Your task to perform on an android device: Do I have any events this weekend? Image 0: 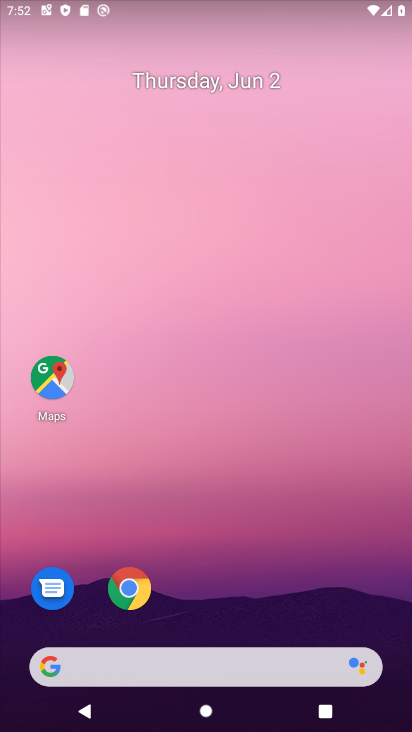
Step 0: drag from (232, 593) to (262, 76)
Your task to perform on an android device: Do I have any events this weekend? Image 1: 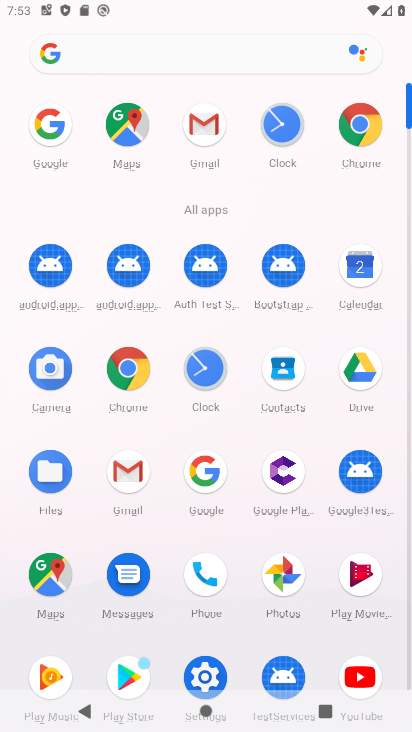
Step 1: drag from (241, 512) to (287, 210)
Your task to perform on an android device: Do I have any events this weekend? Image 2: 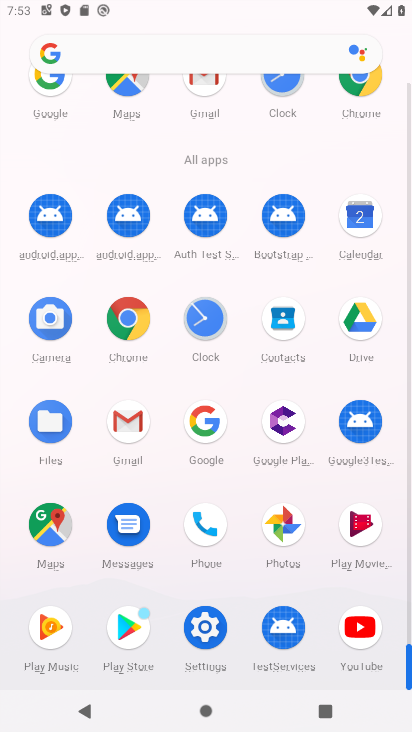
Step 2: click (365, 238)
Your task to perform on an android device: Do I have any events this weekend? Image 3: 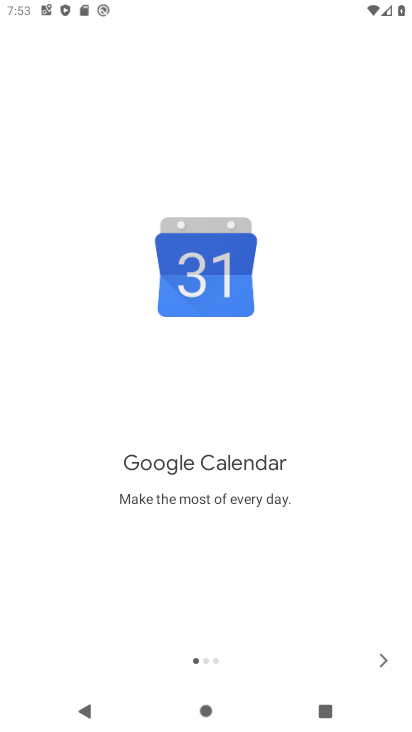
Step 3: click (388, 659)
Your task to perform on an android device: Do I have any events this weekend? Image 4: 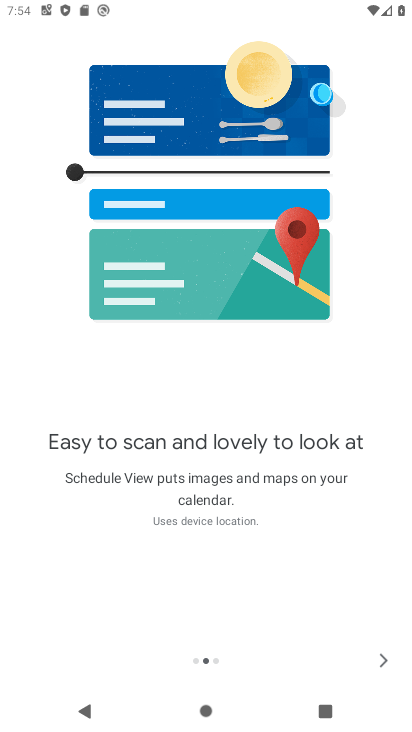
Step 4: click (382, 661)
Your task to perform on an android device: Do I have any events this weekend? Image 5: 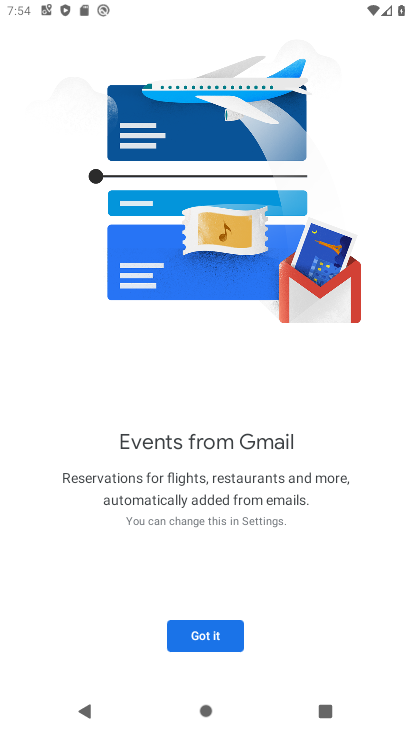
Step 5: click (226, 638)
Your task to perform on an android device: Do I have any events this weekend? Image 6: 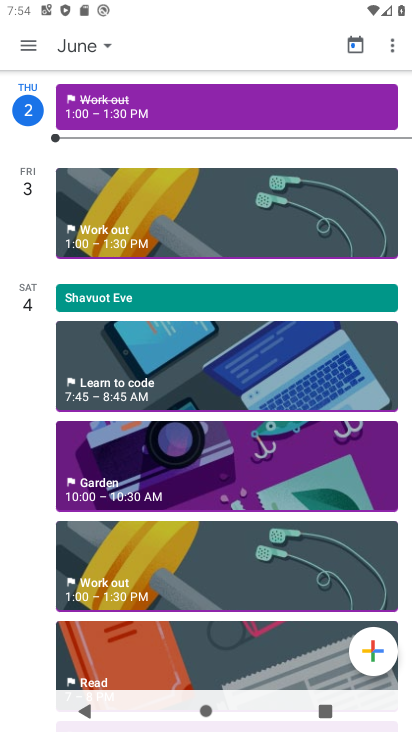
Step 6: click (86, 50)
Your task to perform on an android device: Do I have any events this weekend? Image 7: 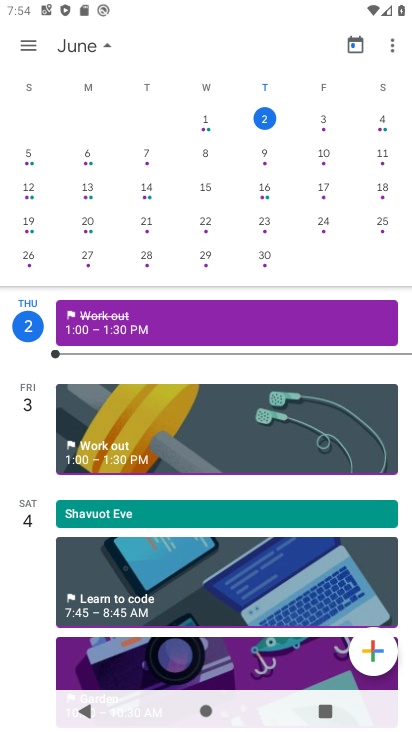
Step 7: click (381, 120)
Your task to perform on an android device: Do I have any events this weekend? Image 8: 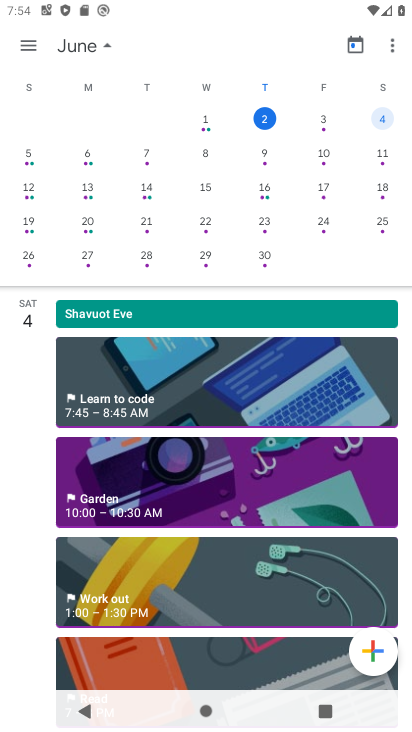
Step 8: task complete